Your task to perform on an android device: Clear the shopping cart on bestbuy. Add jbl charge 4 to the cart on bestbuy Image 0: 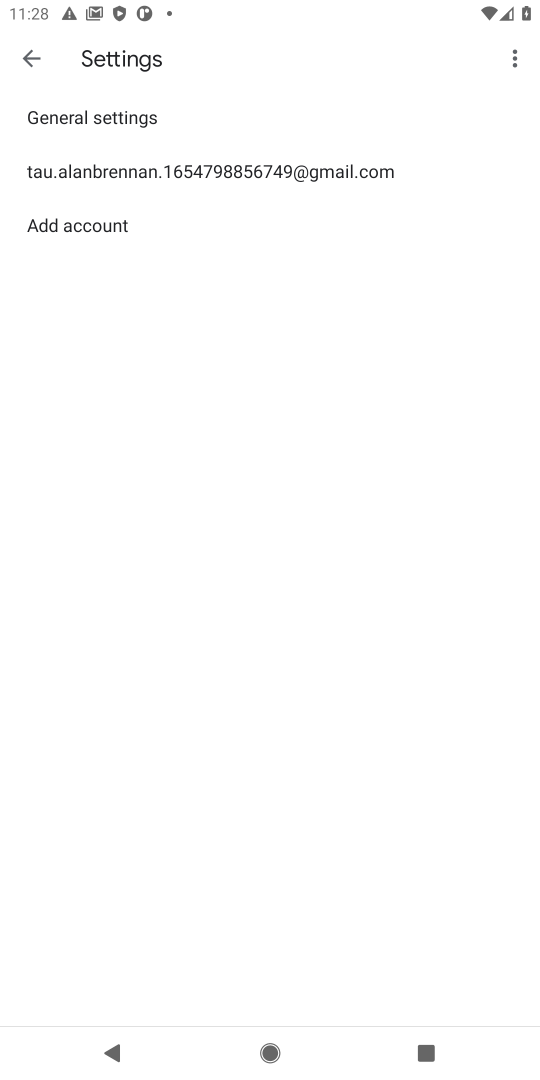
Step 0: press home button
Your task to perform on an android device: Clear the shopping cart on bestbuy. Add jbl charge 4 to the cart on bestbuy Image 1: 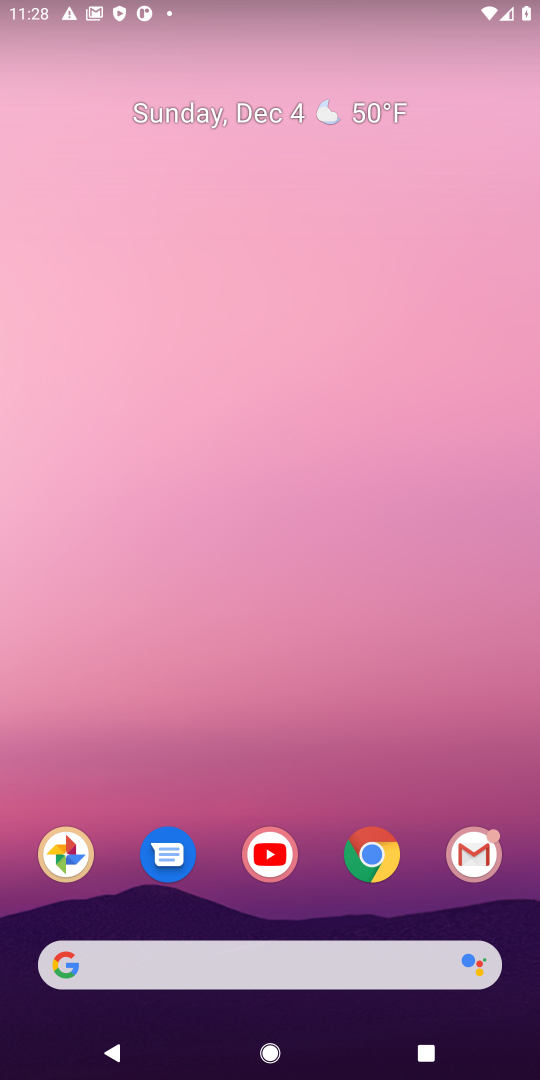
Step 1: click (221, 963)
Your task to perform on an android device: Clear the shopping cart on bestbuy. Add jbl charge 4 to the cart on bestbuy Image 2: 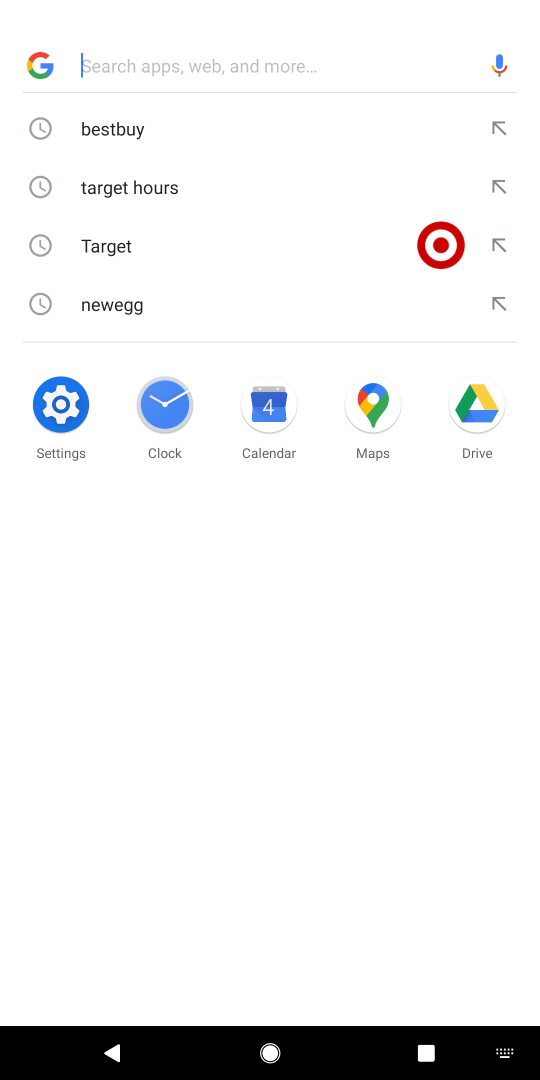
Step 2: type "bestbuy"
Your task to perform on an android device: Clear the shopping cart on bestbuy. Add jbl charge 4 to the cart on bestbuy Image 3: 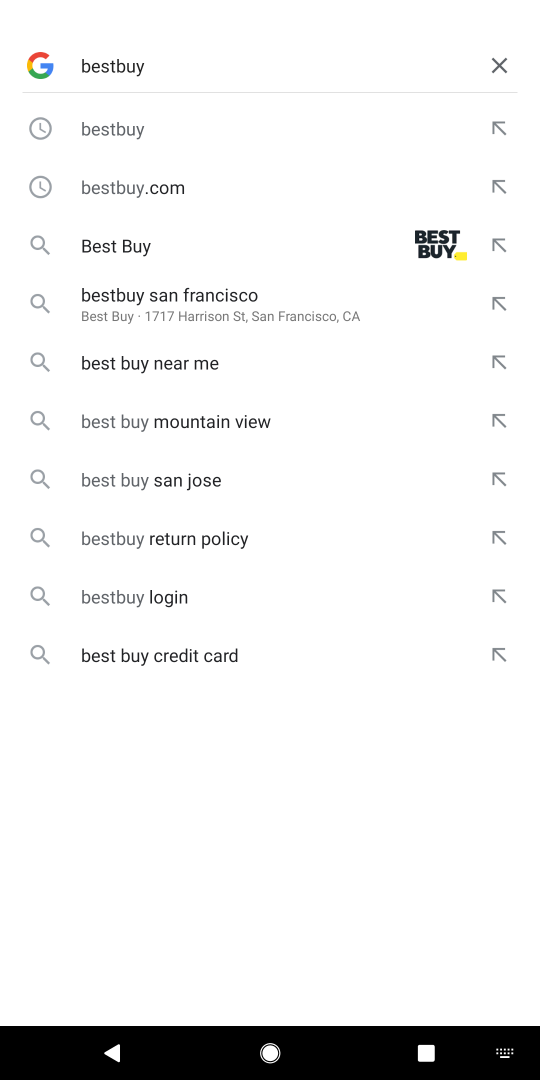
Step 3: click (140, 254)
Your task to perform on an android device: Clear the shopping cart on bestbuy. Add jbl charge 4 to the cart on bestbuy Image 4: 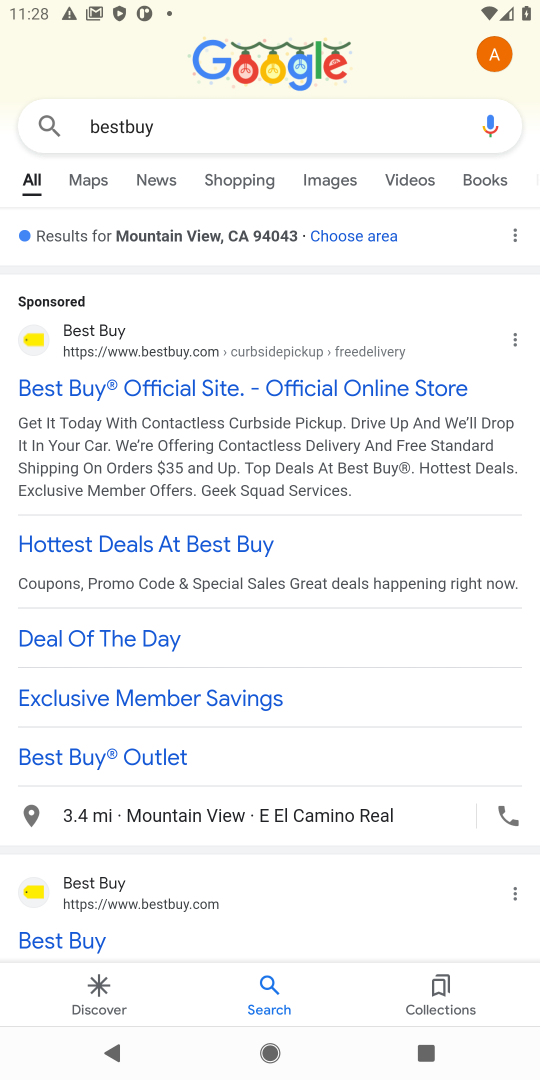
Step 4: click (151, 399)
Your task to perform on an android device: Clear the shopping cart on bestbuy. Add jbl charge 4 to the cart on bestbuy Image 5: 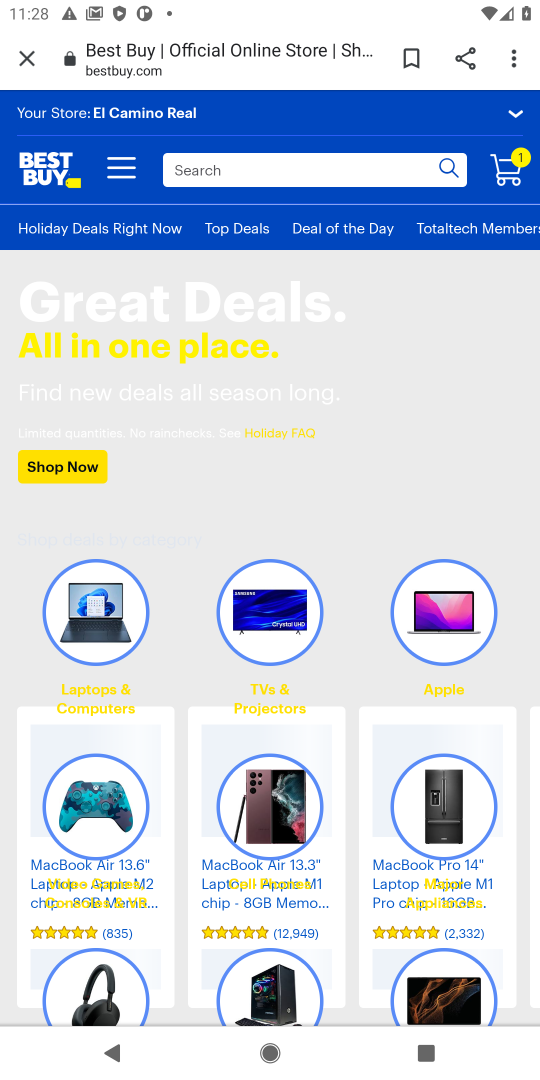
Step 5: click (326, 185)
Your task to perform on an android device: Clear the shopping cart on bestbuy. Add jbl charge 4 to the cart on bestbuy Image 6: 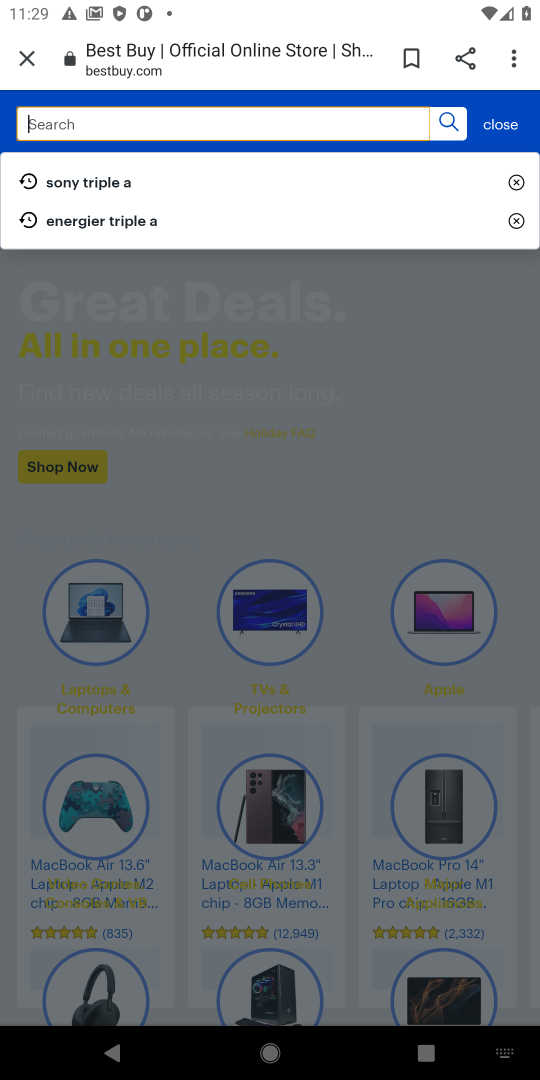
Step 6: type "jbl charge 4"
Your task to perform on an android device: Clear the shopping cart on bestbuy. Add jbl charge 4 to the cart on bestbuy Image 7: 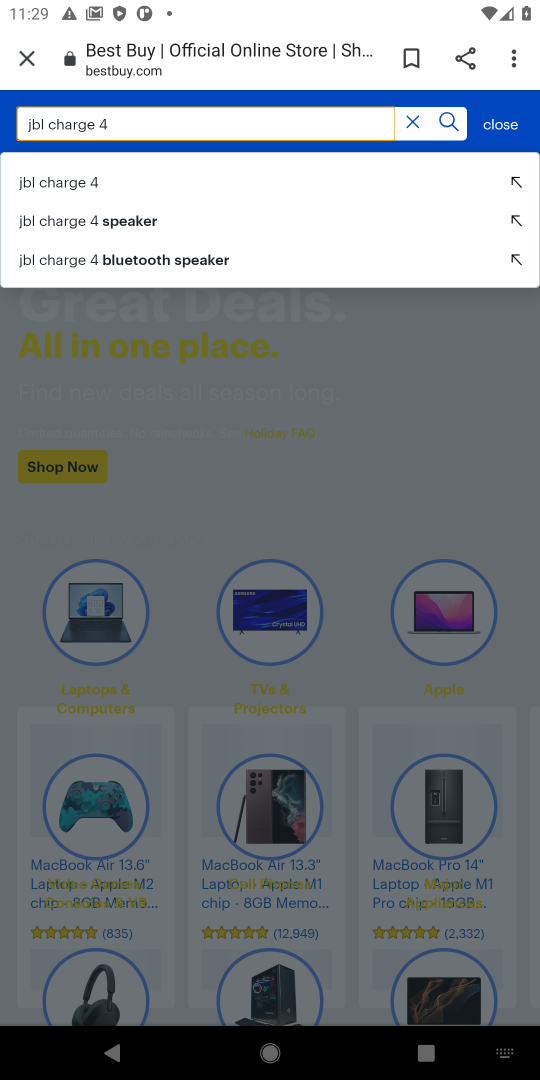
Step 7: click (130, 188)
Your task to perform on an android device: Clear the shopping cart on bestbuy. Add jbl charge 4 to the cart on bestbuy Image 8: 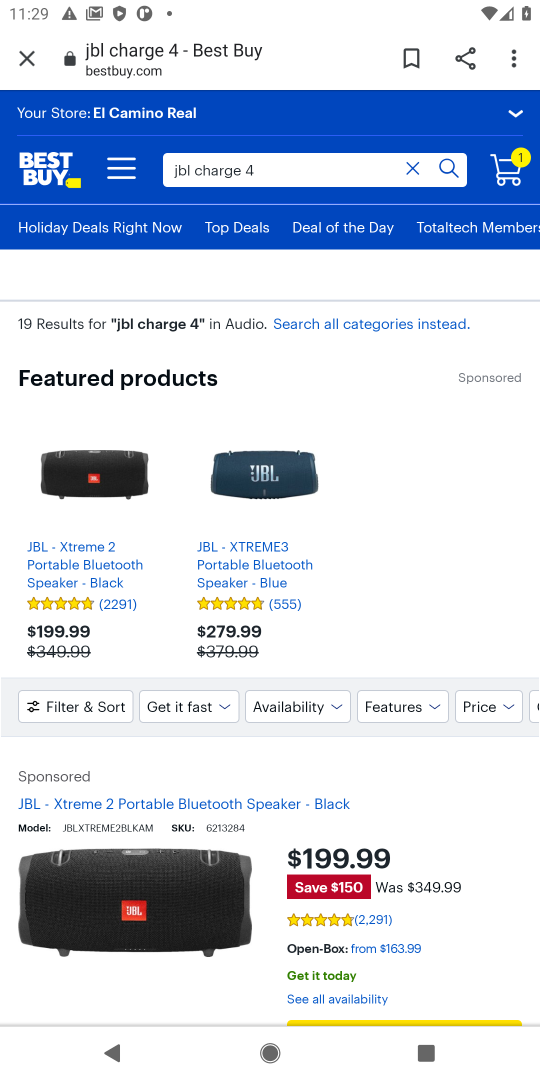
Step 8: click (168, 865)
Your task to perform on an android device: Clear the shopping cart on bestbuy. Add jbl charge 4 to the cart on bestbuy Image 9: 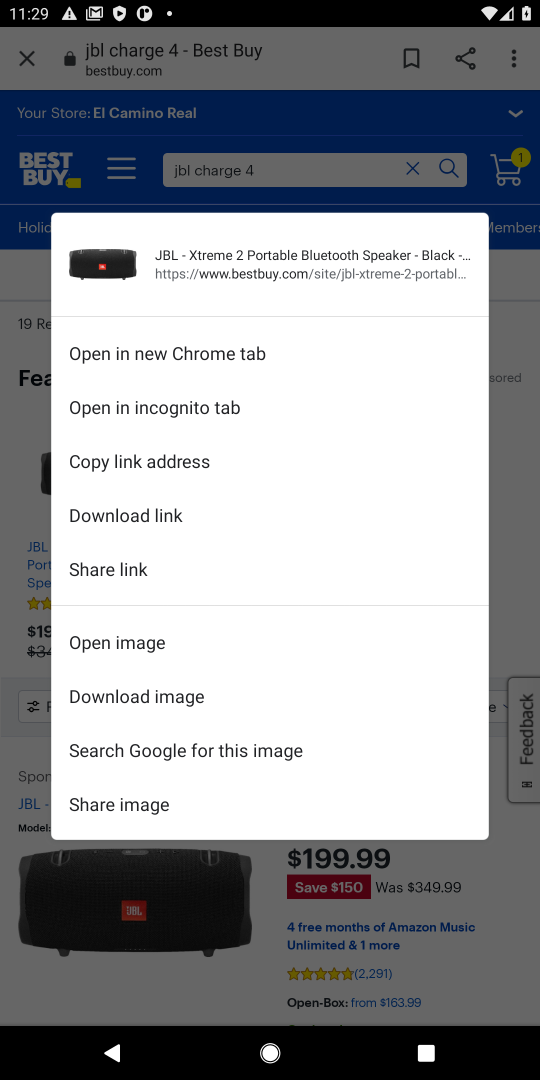
Step 9: click (250, 974)
Your task to perform on an android device: Clear the shopping cart on bestbuy. Add jbl charge 4 to the cart on bestbuy Image 10: 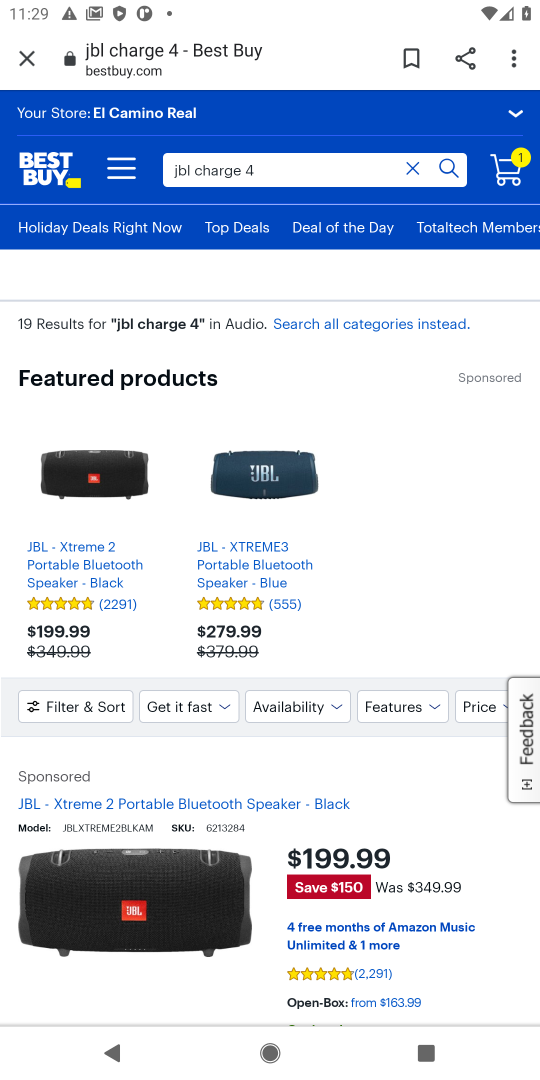
Step 10: drag from (250, 974) to (356, 383)
Your task to perform on an android device: Clear the shopping cart on bestbuy. Add jbl charge 4 to the cart on bestbuy Image 11: 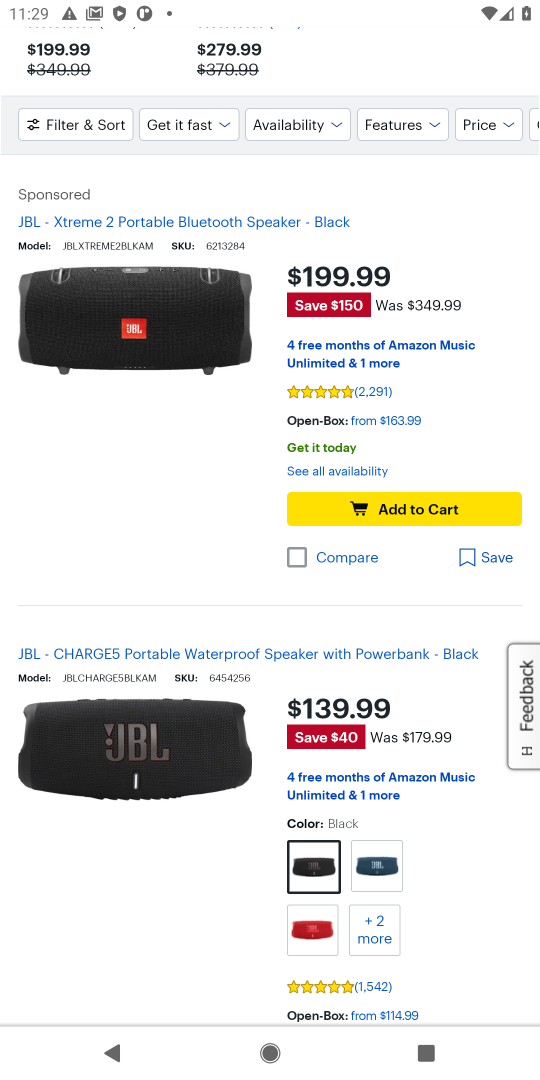
Step 11: click (398, 527)
Your task to perform on an android device: Clear the shopping cart on bestbuy. Add jbl charge 4 to the cart on bestbuy Image 12: 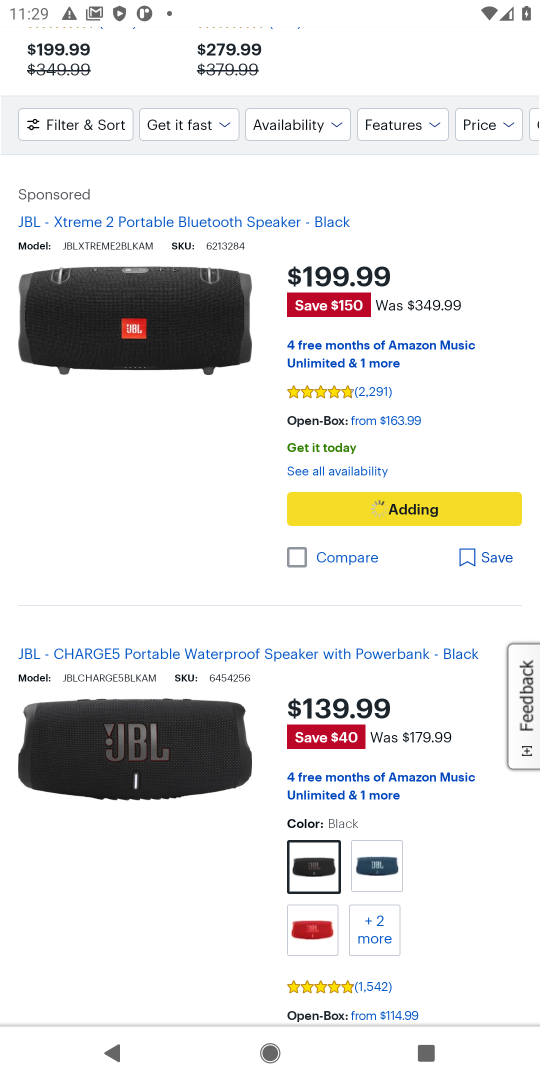
Step 12: task complete